Your task to perform on an android device: What's the weather? Image 0: 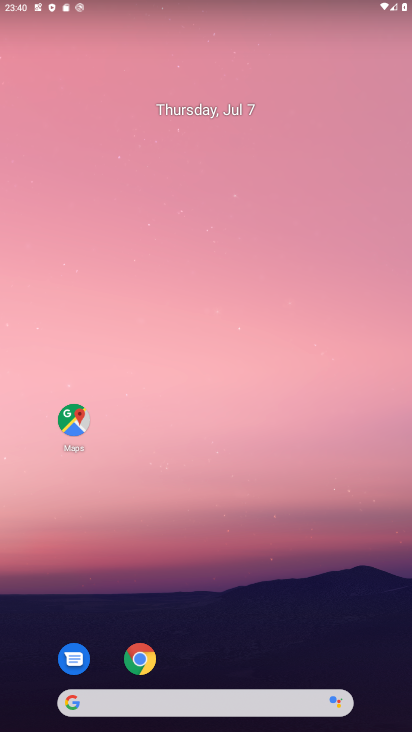
Step 0: click (203, 704)
Your task to perform on an android device: What's the weather? Image 1: 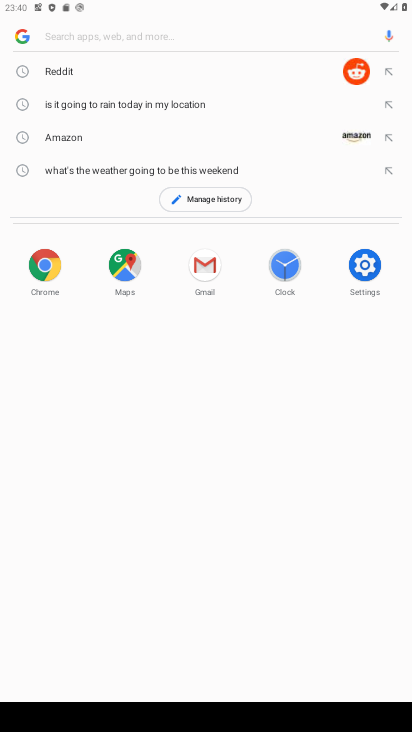
Step 1: type "weather"
Your task to perform on an android device: What's the weather? Image 2: 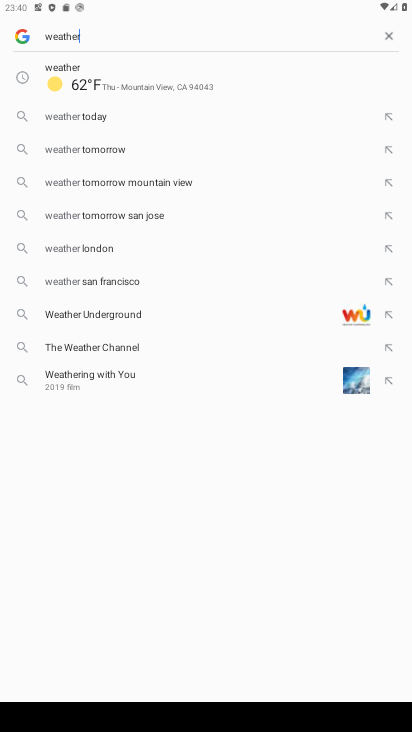
Step 2: click (152, 74)
Your task to perform on an android device: What's the weather? Image 3: 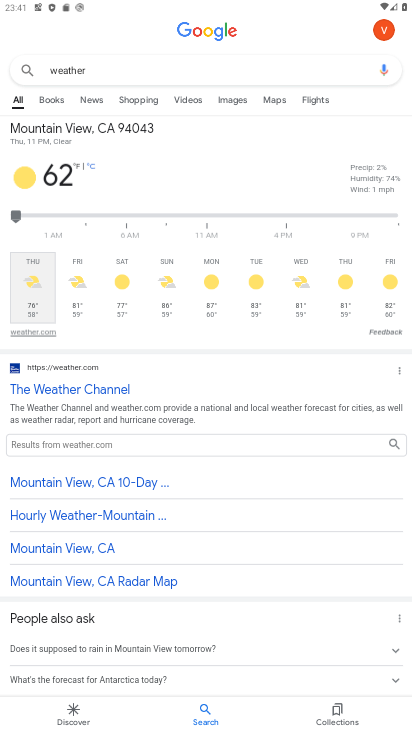
Step 3: task complete